Your task to perform on an android device: delete a single message in the gmail app Image 0: 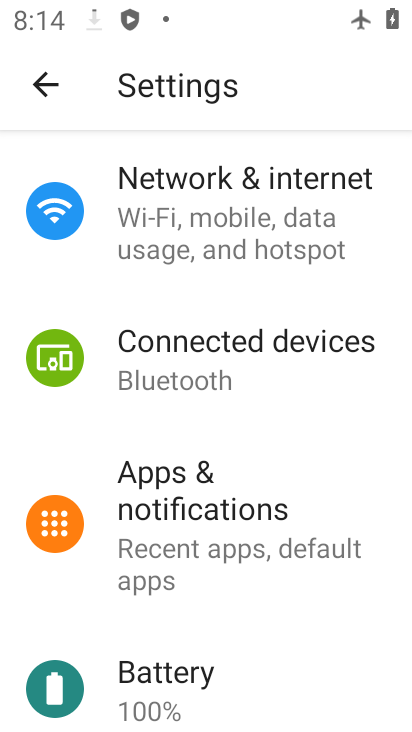
Step 0: press home button
Your task to perform on an android device: delete a single message in the gmail app Image 1: 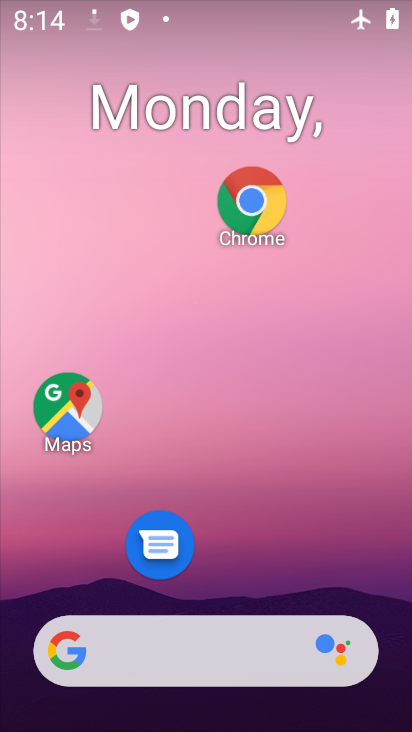
Step 1: drag from (252, 573) to (228, 94)
Your task to perform on an android device: delete a single message in the gmail app Image 2: 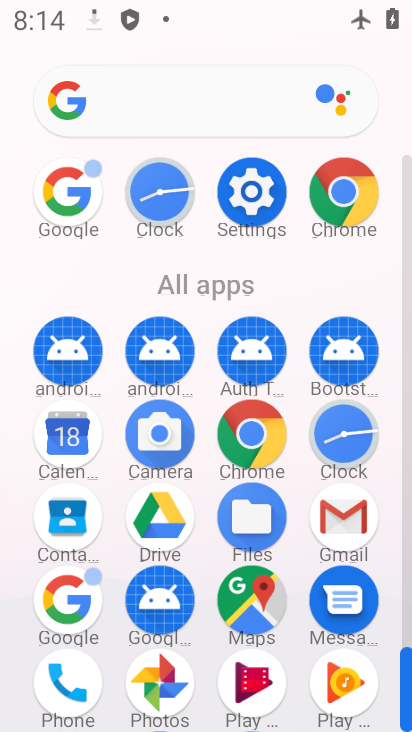
Step 2: click (355, 508)
Your task to perform on an android device: delete a single message in the gmail app Image 3: 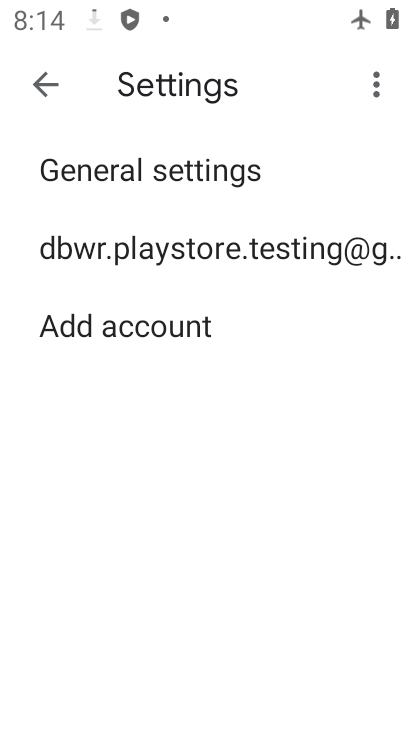
Step 3: click (197, 255)
Your task to perform on an android device: delete a single message in the gmail app Image 4: 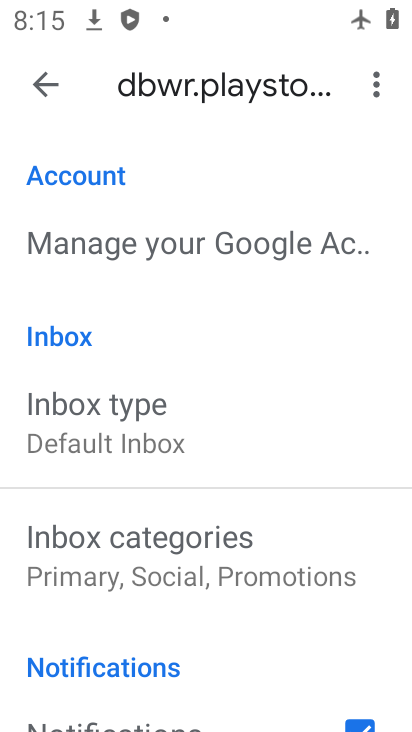
Step 4: click (36, 87)
Your task to perform on an android device: delete a single message in the gmail app Image 5: 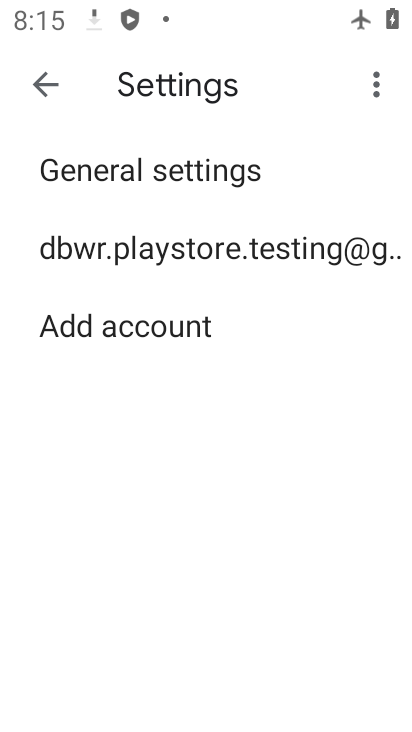
Step 5: click (44, 76)
Your task to perform on an android device: delete a single message in the gmail app Image 6: 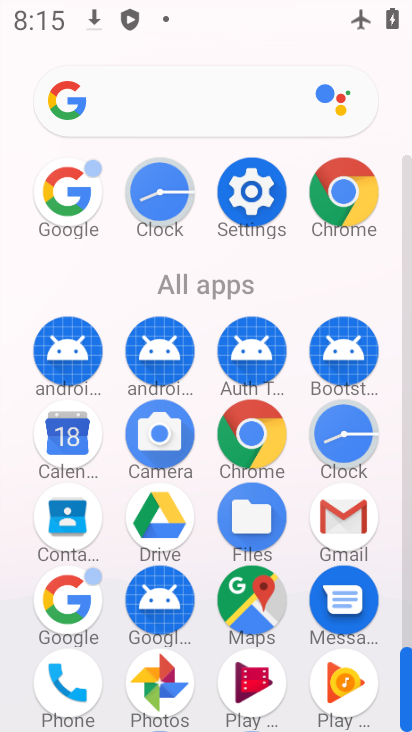
Step 6: click (331, 516)
Your task to perform on an android device: delete a single message in the gmail app Image 7: 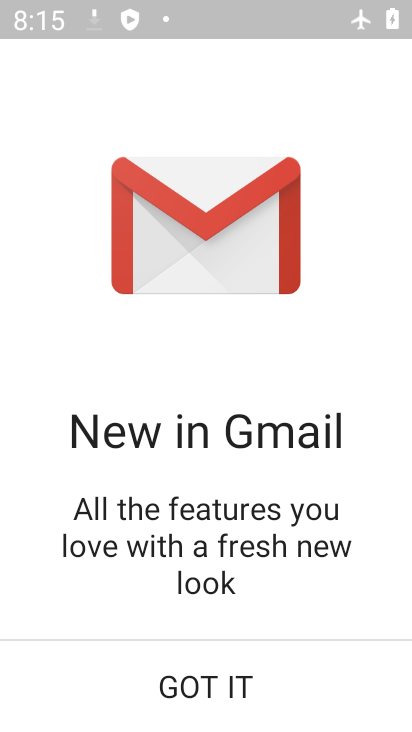
Step 7: click (260, 689)
Your task to perform on an android device: delete a single message in the gmail app Image 8: 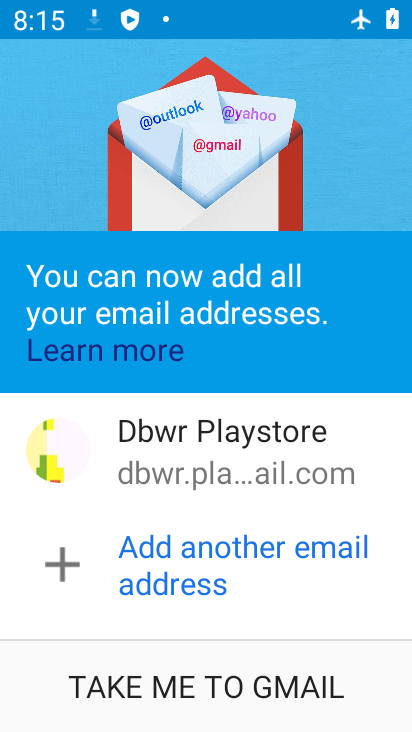
Step 8: click (246, 680)
Your task to perform on an android device: delete a single message in the gmail app Image 9: 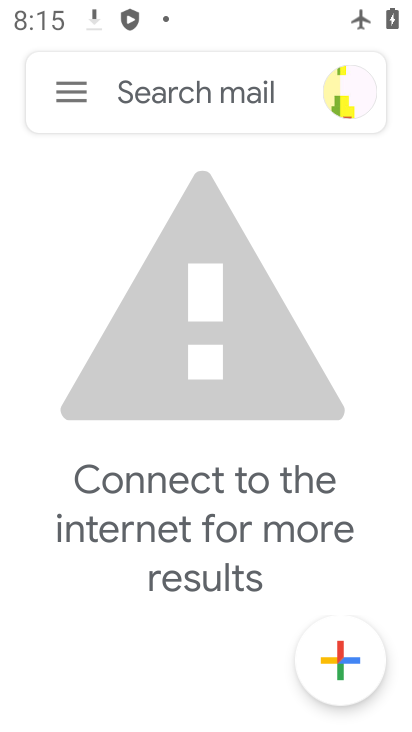
Step 9: task complete